Your task to perform on an android device: Check the weather Image 0: 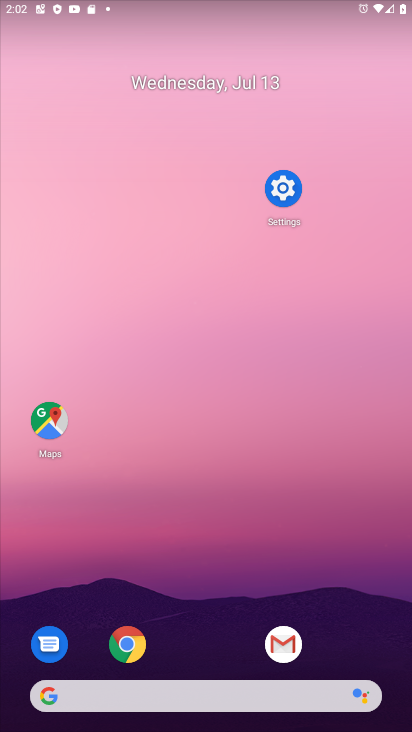
Step 0: press home button
Your task to perform on an android device: Check the weather Image 1: 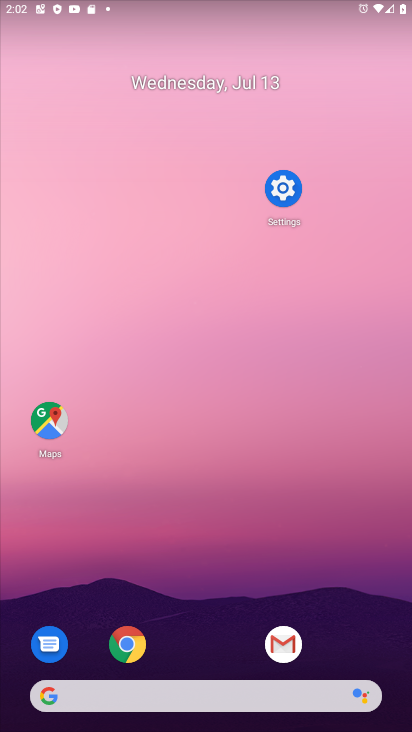
Step 1: click (112, 697)
Your task to perform on an android device: Check the weather Image 2: 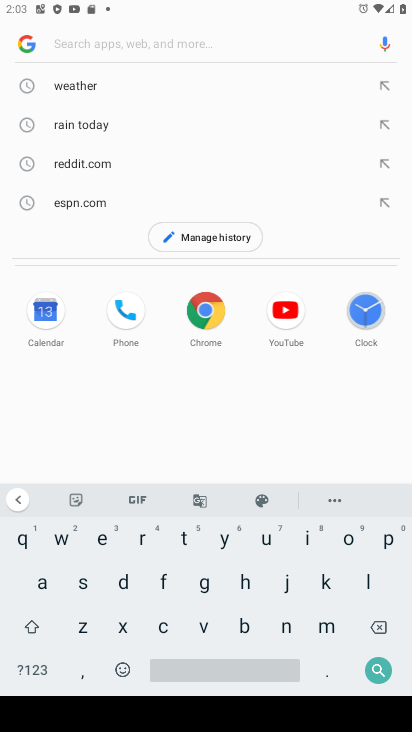
Step 2: click (65, 553)
Your task to perform on an android device: Check the weather Image 3: 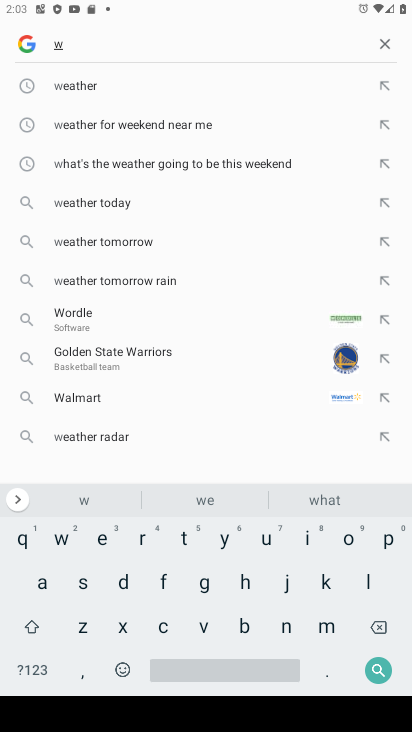
Step 3: click (106, 82)
Your task to perform on an android device: Check the weather Image 4: 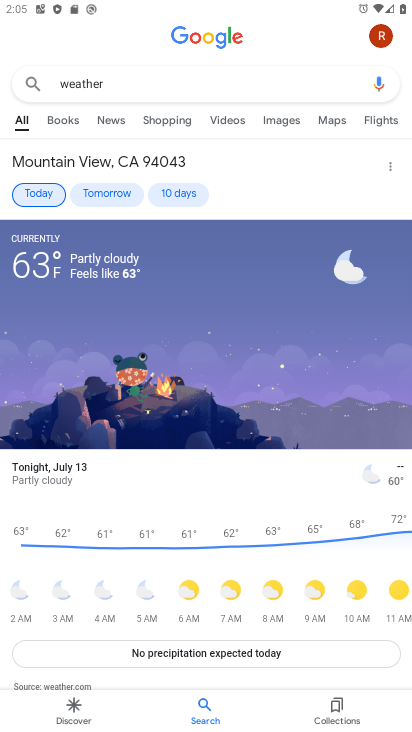
Step 4: task complete